Your task to perform on an android device: Find coffee shops on Maps Image 0: 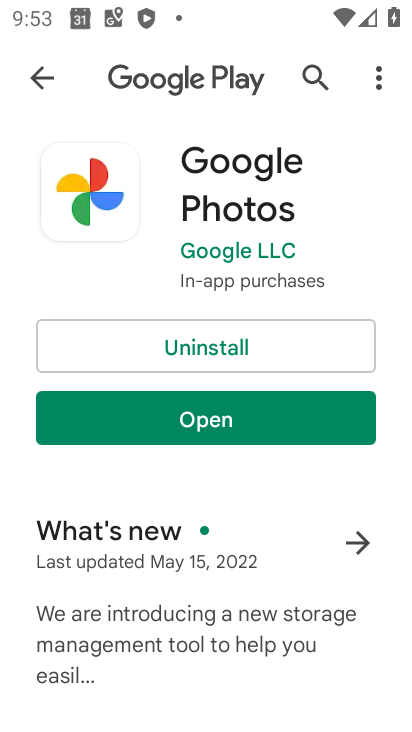
Step 0: click (177, 636)
Your task to perform on an android device: Find coffee shops on Maps Image 1: 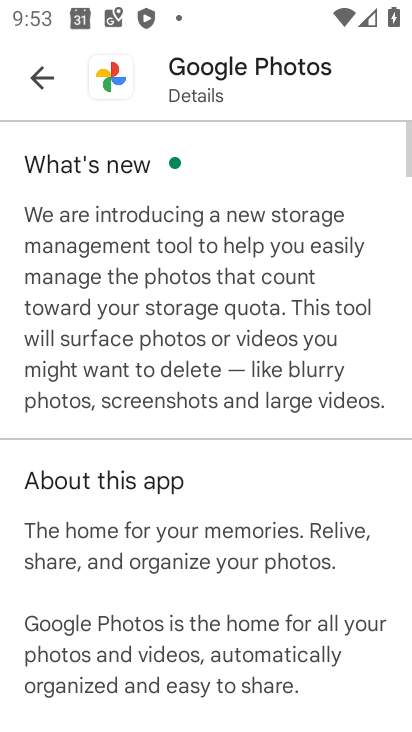
Step 1: press home button
Your task to perform on an android device: Find coffee shops on Maps Image 2: 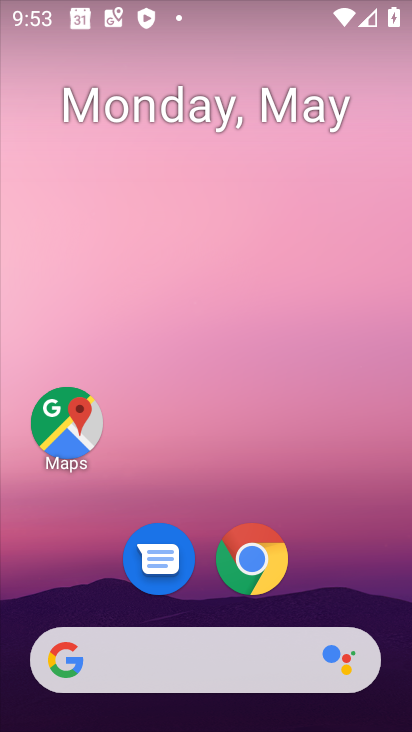
Step 2: click (77, 435)
Your task to perform on an android device: Find coffee shops on Maps Image 3: 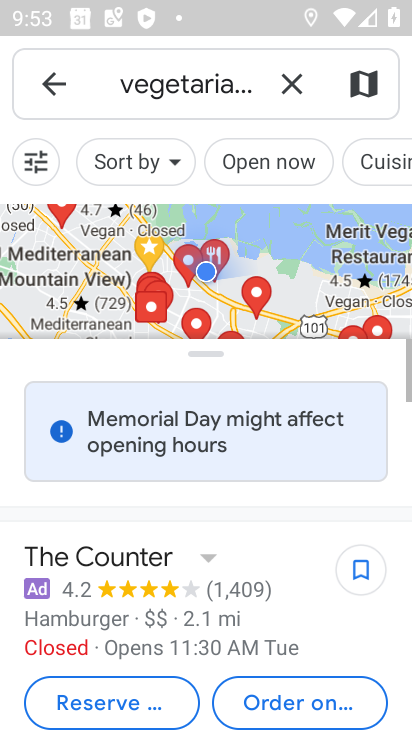
Step 3: click (285, 81)
Your task to perform on an android device: Find coffee shops on Maps Image 4: 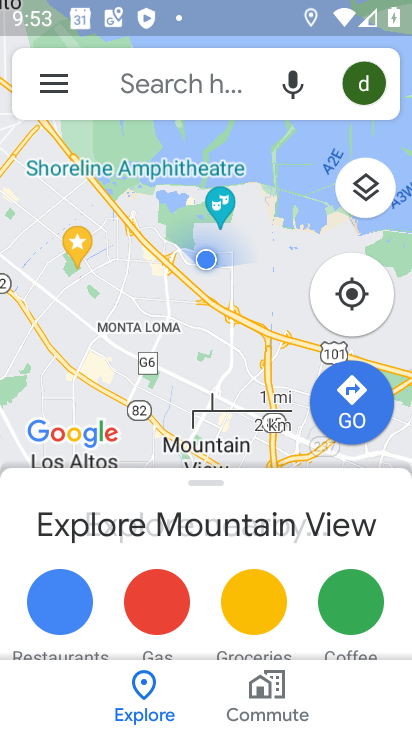
Step 4: click (120, 83)
Your task to perform on an android device: Find coffee shops on Maps Image 5: 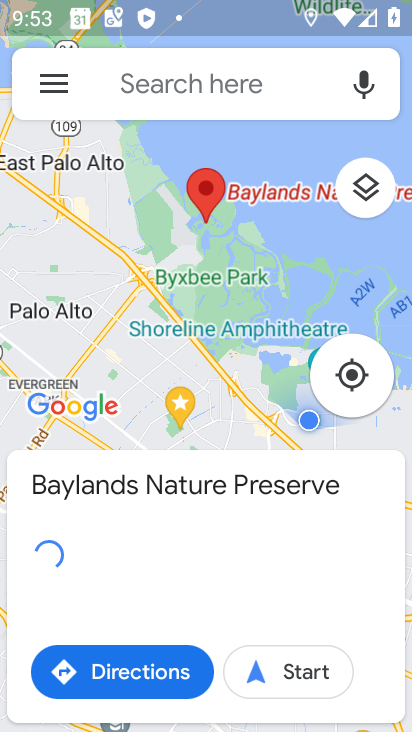
Step 5: click (168, 73)
Your task to perform on an android device: Find coffee shops on Maps Image 6: 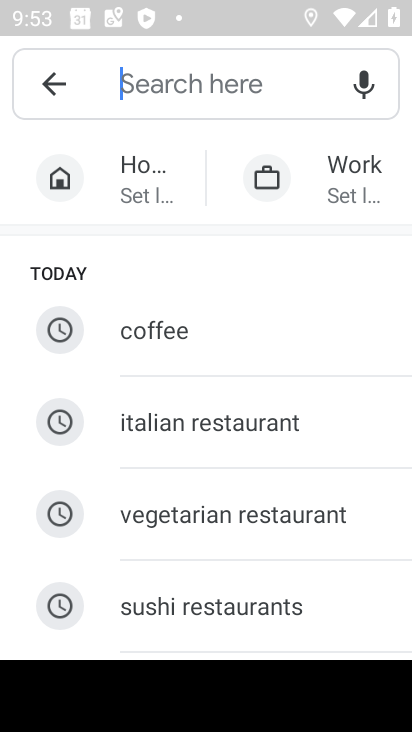
Step 6: click (174, 328)
Your task to perform on an android device: Find coffee shops on Maps Image 7: 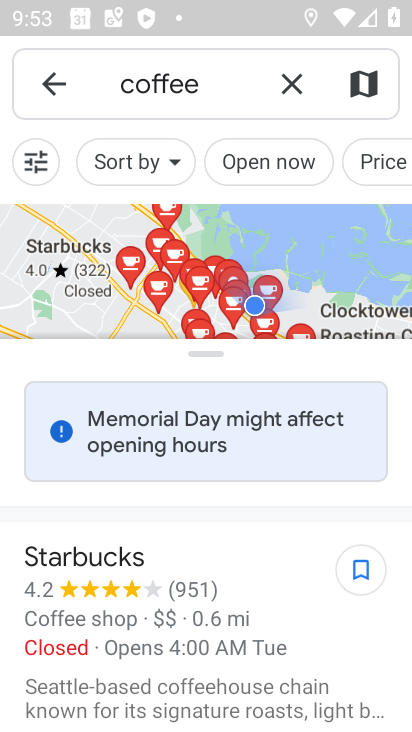
Step 7: task complete